Your task to perform on an android device: Go to Wikipedia Image 0: 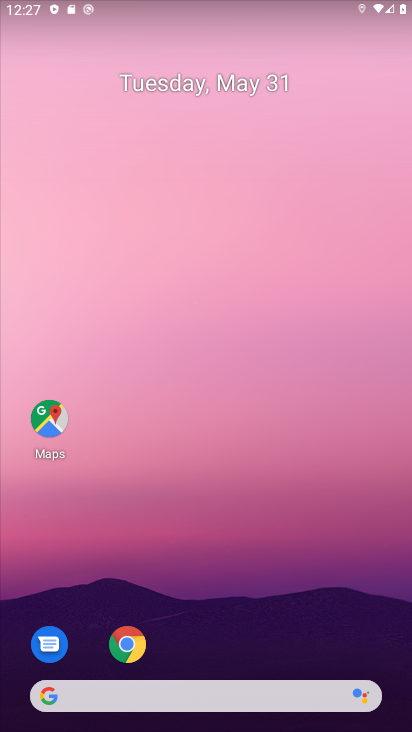
Step 0: press home button
Your task to perform on an android device: Go to Wikipedia Image 1: 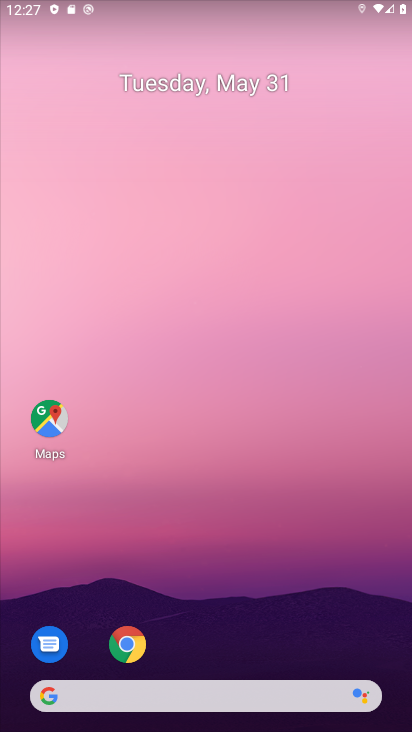
Step 1: drag from (179, 620) to (166, 26)
Your task to perform on an android device: Go to Wikipedia Image 2: 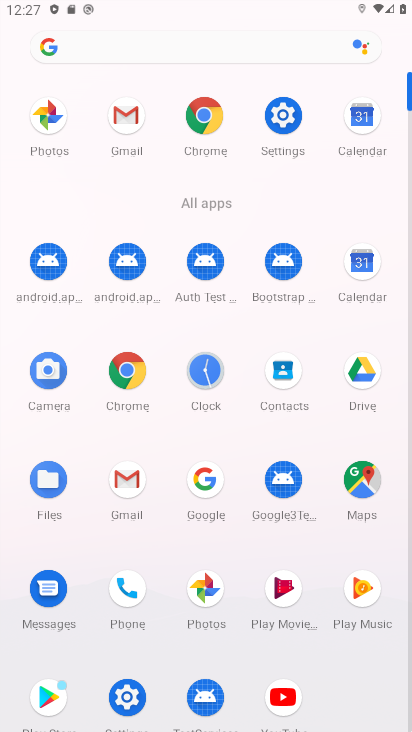
Step 2: click (204, 487)
Your task to perform on an android device: Go to Wikipedia Image 3: 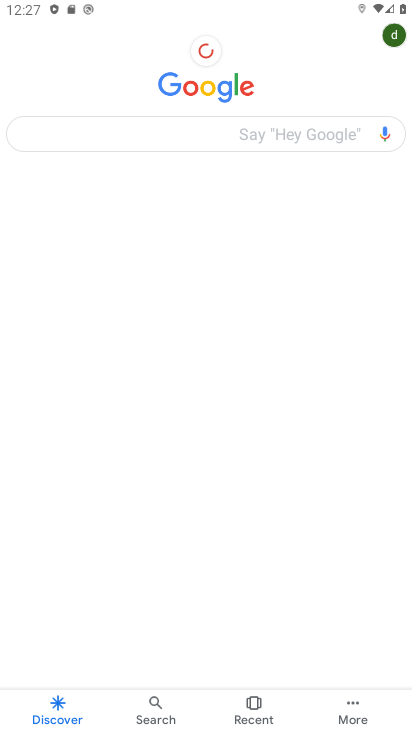
Step 3: click (156, 137)
Your task to perform on an android device: Go to Wikipedia Image 4: 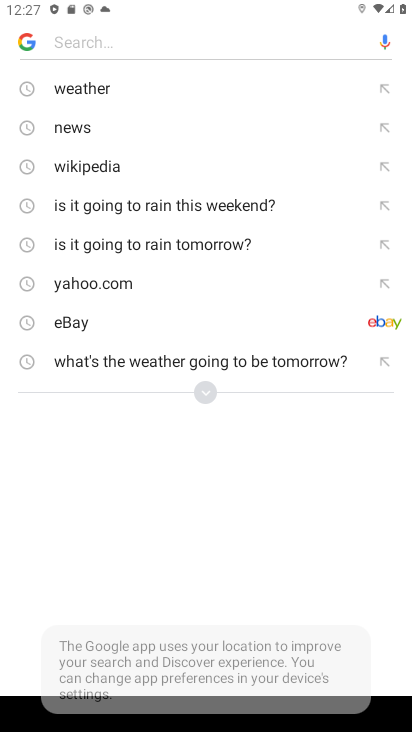
Step 4: click (82, 163)
Your task to perform on an android device: Go to Wikipedia Image 5: 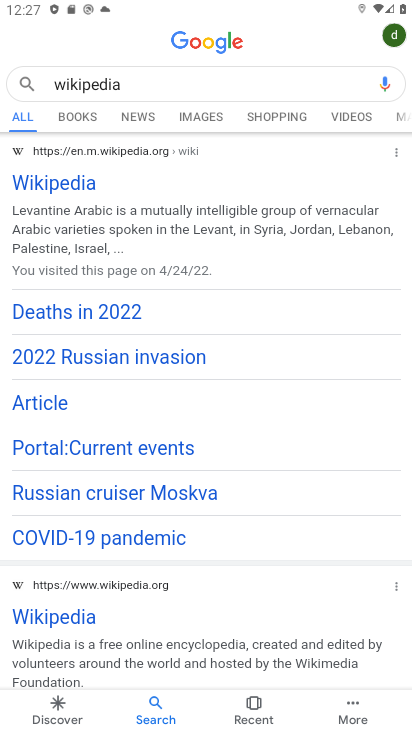
Step 5: click (50, 189)
Your task to perform on an android device: Go to Wikipedia Image 6: 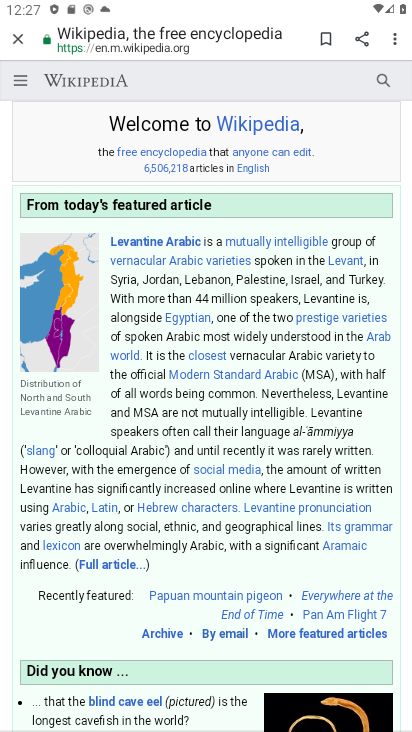
Step 6: task complete